Your task to perform on an android device: Open battery settings Image 0: 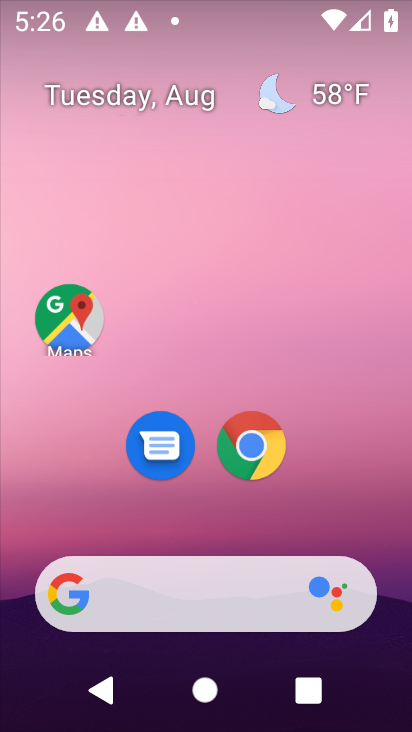
Step 0: click (206, 538)
Your task to perform on an android device: Open battery settings Image 1: 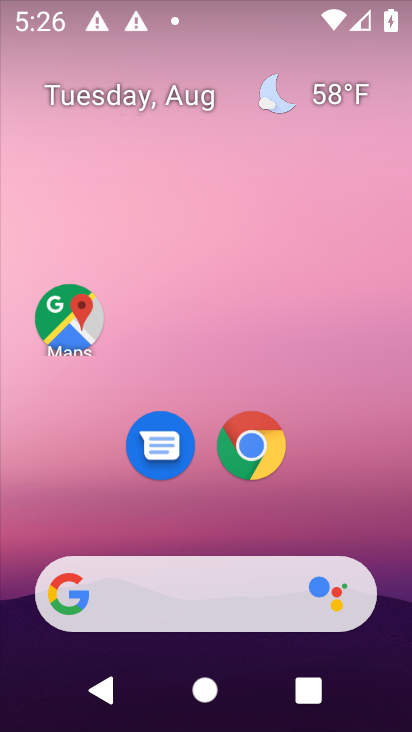
Step 1: click (197, 531)
Your task to perform on an android device: Open battery settings Image 2: 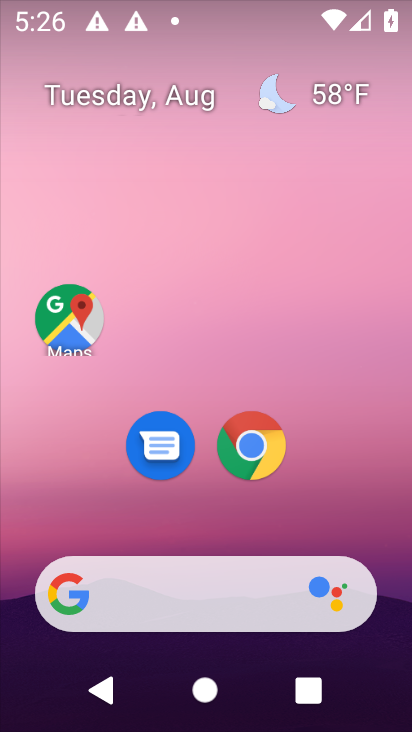
Step 2: drag from (240, 390) to (230, 24)
Your task to perform on an android device: Open battery settings Image 3: 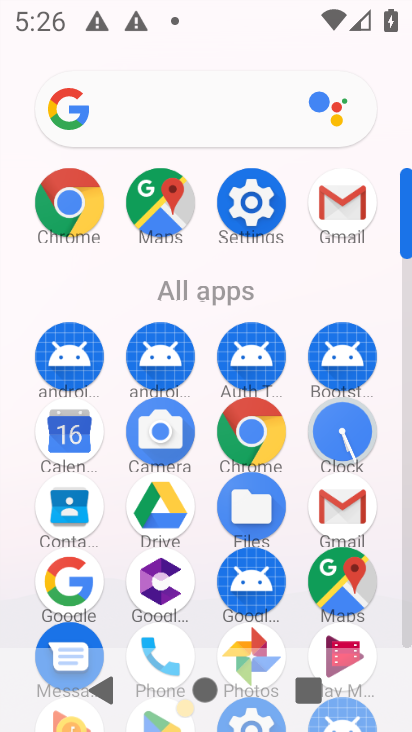
Step 3: click (246, 197)
Your task to perform on an android device: Open battery settings Image 4: 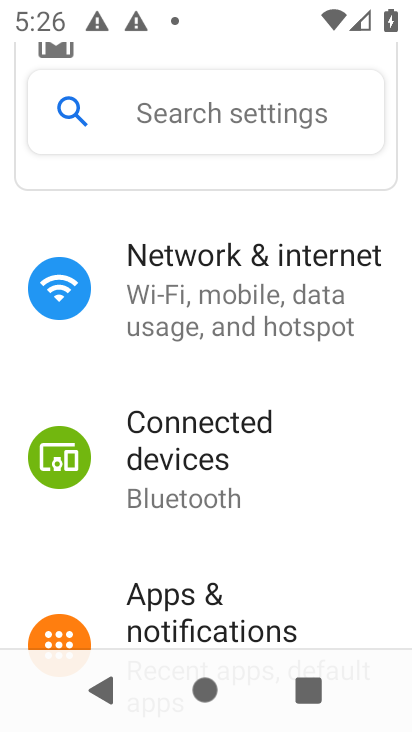
Step 4: drag from (251, 524) to (258, 243)
Your task to perform on an android device: Open battery settings Image 5: 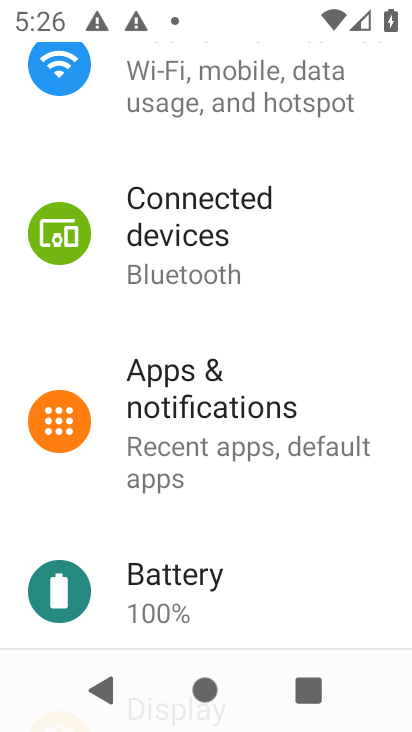
Step 5: click (311, 265)
Your task to perform on an android device: Open battery settings Image 6: 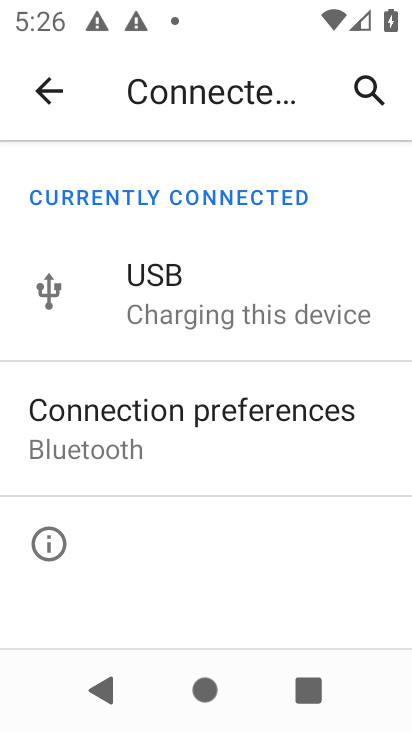
Step 6: click (47, 91)
Your task to perform on an android device: Open battery settings Image 7: 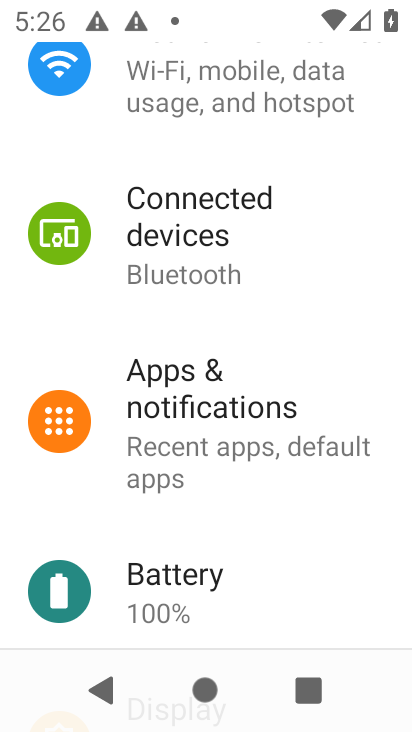
Step 7: click (165, 597)
Your task to perform on an android device: Open battery settings Image 8: 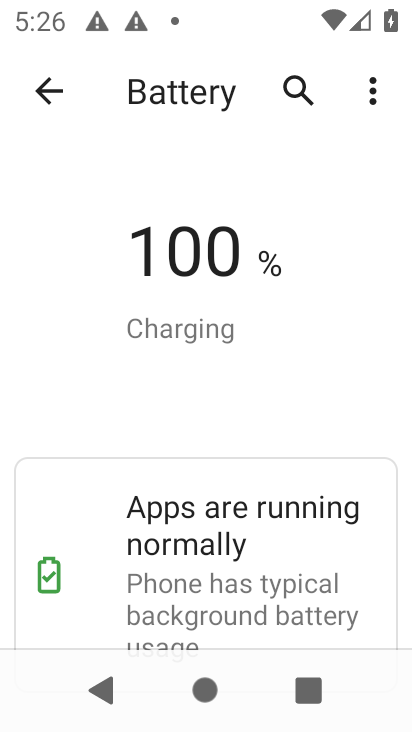
Step 8: task complete